Your task to perform on an android device: clear all cookies in the chrome app Image 0: 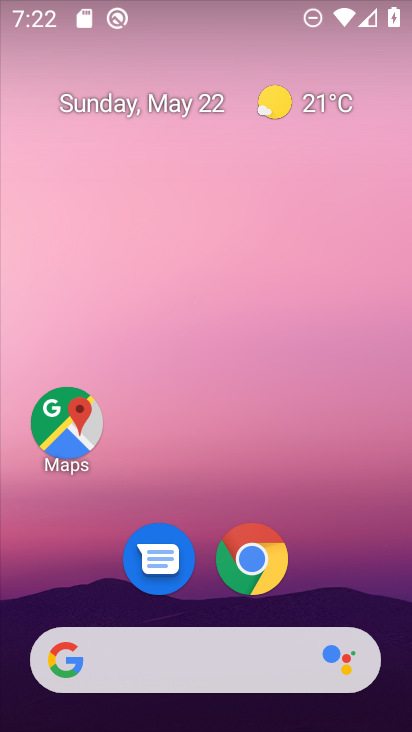
Step 0: drag from (232, 701) to (122, 105)
Your task to perform on an android device: clear all cookies in the chrome app Image 1: 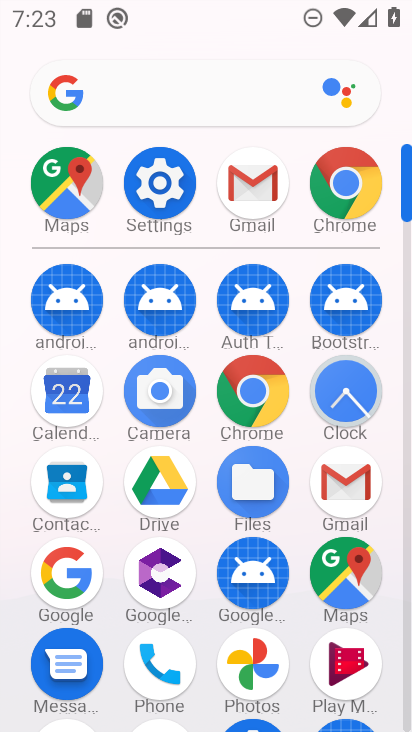
Step 1: click (345, 199)
Your task to perform on an android device: clear all cookies in the chrome app Image 2: 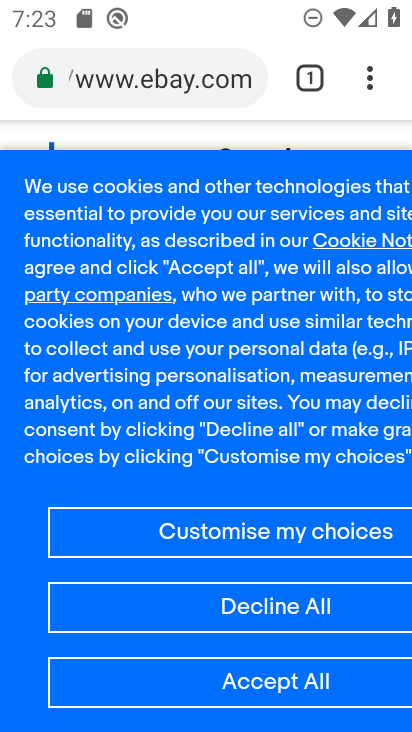
Step 2: click (379, 83)
Your task to perform on an android device: clear all cookies in the chrome app Image 3: 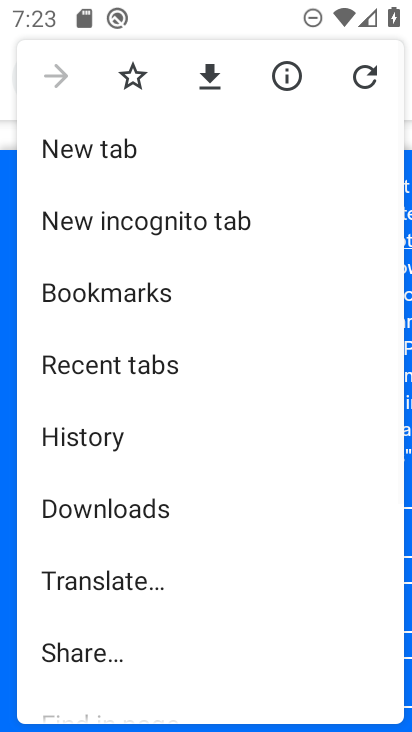
Step 3: drag from (195, 593) to (203, 319)
Your task to perform on an android device: clear all cookies in the chrome app Image 4: 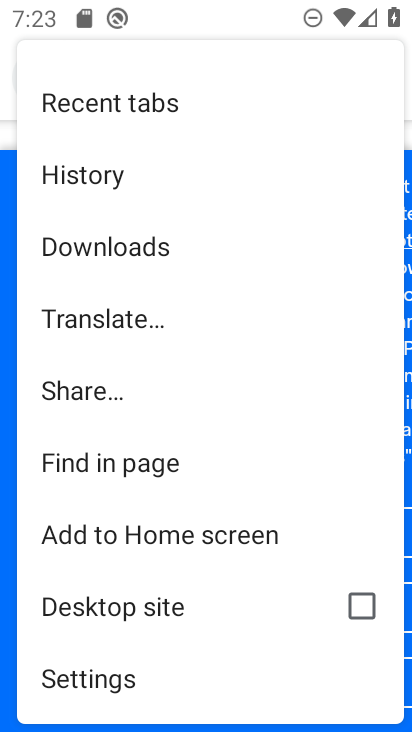
Step 4: click (153, 671)
Your task to perform on an android device: clear all cookies in the chrome app Image 5: 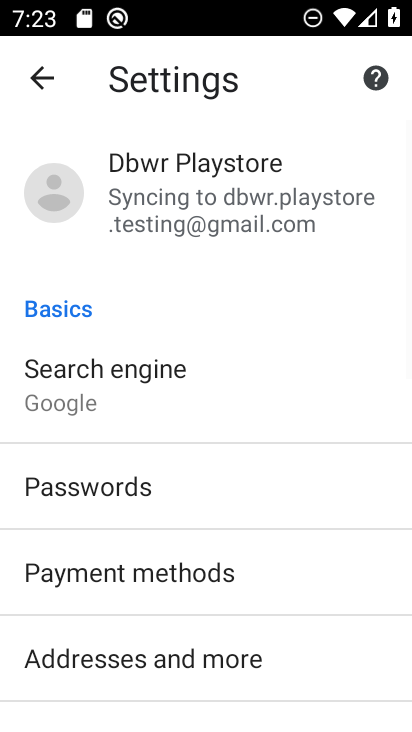
Step 5: drag from (153, 669) to (65, 278)
Your task to perform on an android device: clear all cookies in the chrome app Image 6: 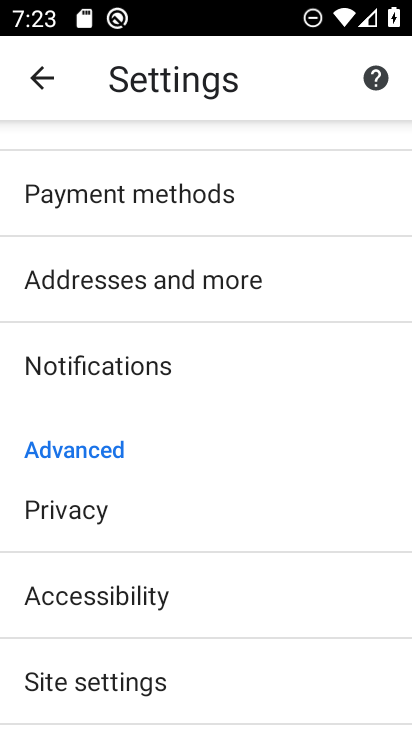
Step 6: click (87, 504)
Your task to perform on an android device: clear all cookies in the chrome app Image 7: 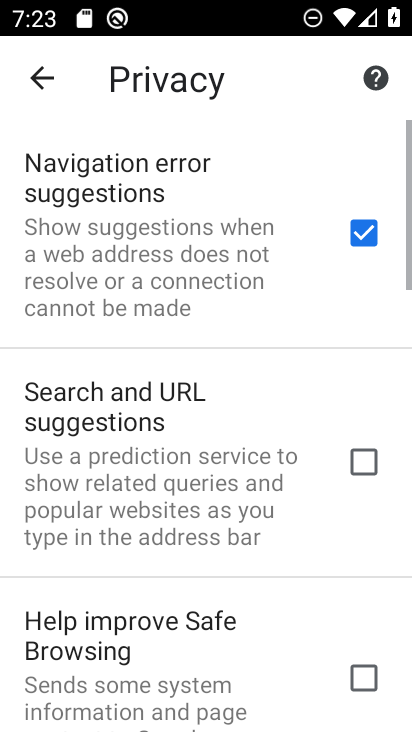
Step 7: drag from (224, 624) to (250, 218)
Your task to perform on an android device: clear all cookies in the chrome app Image 8: 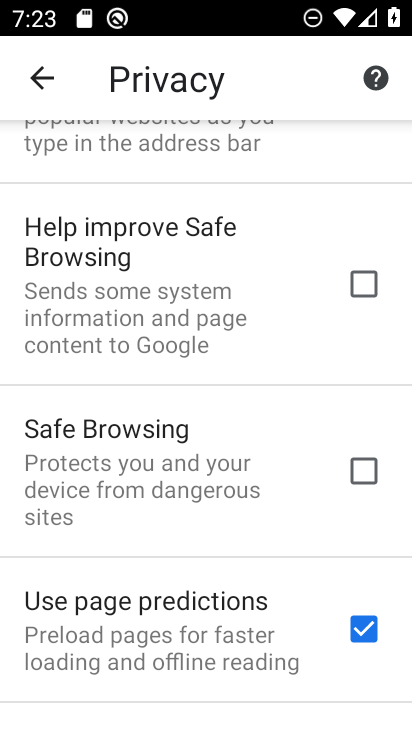
Step 8: drag from (282, 538) to (239, 204)
Your task to perform on an android device: clear all cookies in the chrome app Image 9: 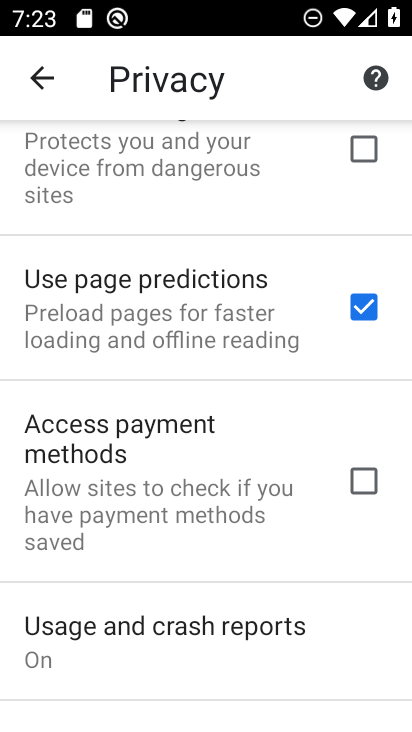
Step 9: drag from (207, 630) to (165, 221)
Your task to perform on an android device: clear all cookies in the chrome app Image 10: 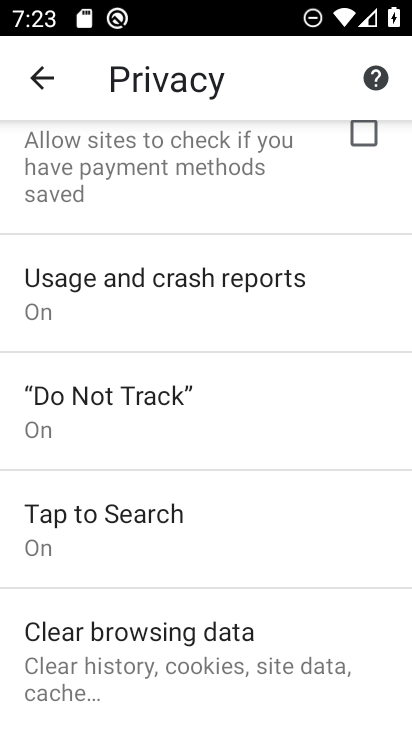
Step 10: click (154, 637)
Your task to perform on an android device: clear all cookies in the chrome app Image 11: 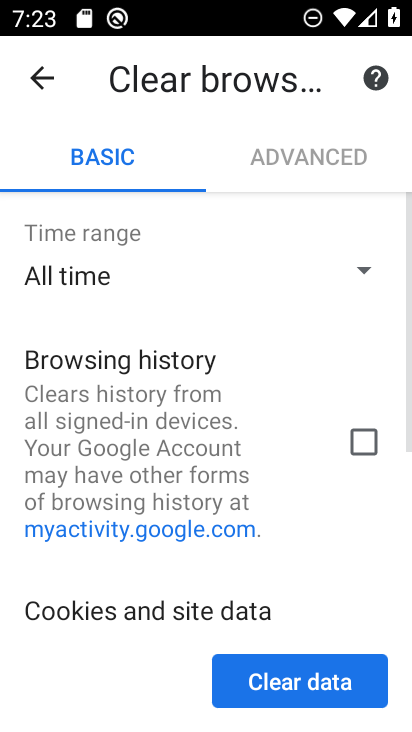
Step 11: drag from (194, 579) to (148, 311)
Your task to perform on an android device: clear all cookies in the chrome app Image 12: 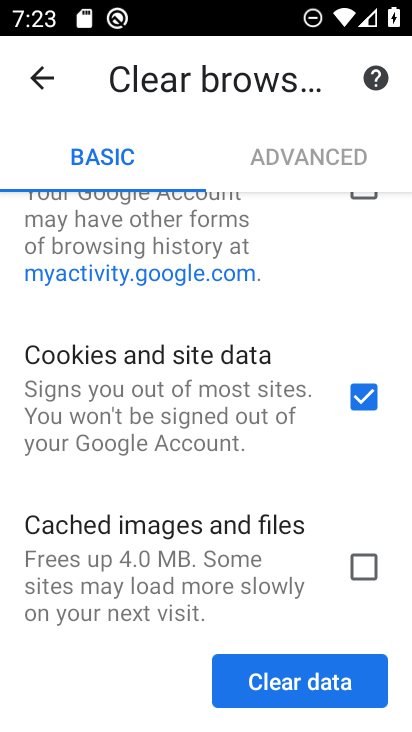
Step 12: click (316, 688)
Your task to perform on an android device: clear all cookies in the chrome app Image 13: 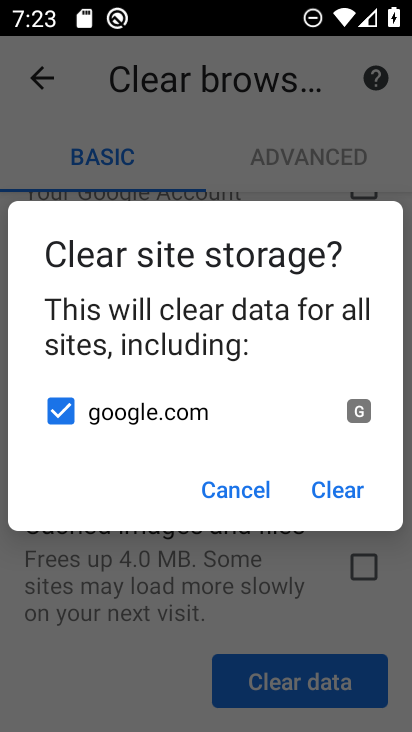
Step 13: click (330, 486)
Your task to perform on an android device: clear all cookies in the chrome app Image 14: 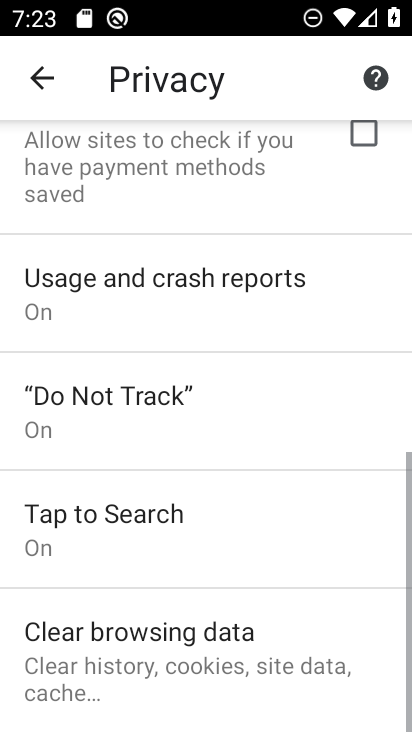
Step 14: task complete